Your task to perform on an android device: toggle pop-ups in chrome Image 0: 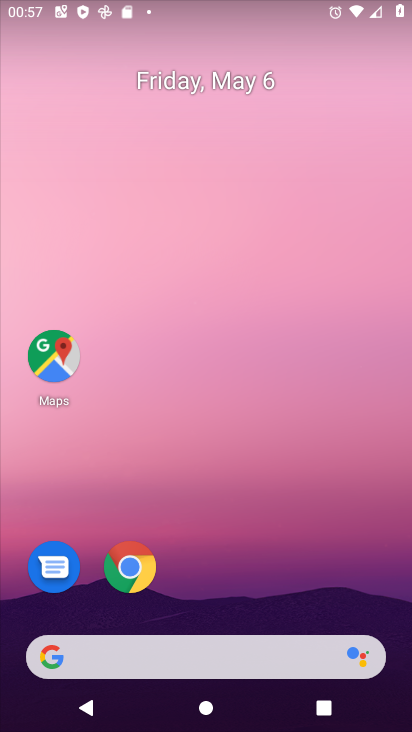
Step 0: click (133, 579)
Your task to perform on an android device: toggle pop-ups in chrome Image 1: 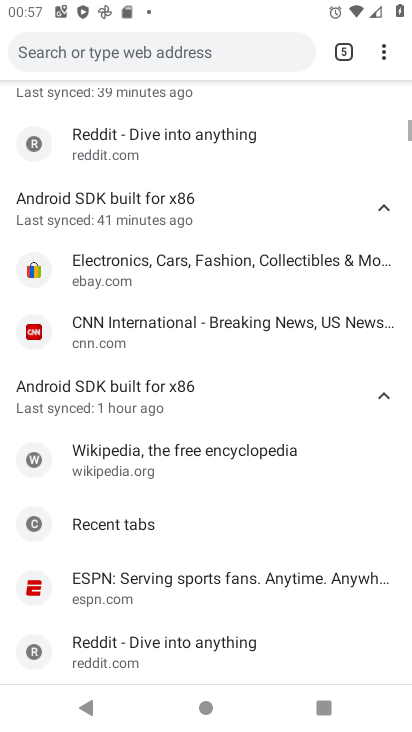
Step 1: click (385, 50)
Your task to perform on an android device: toggle pop-ups in chrome Image 2: 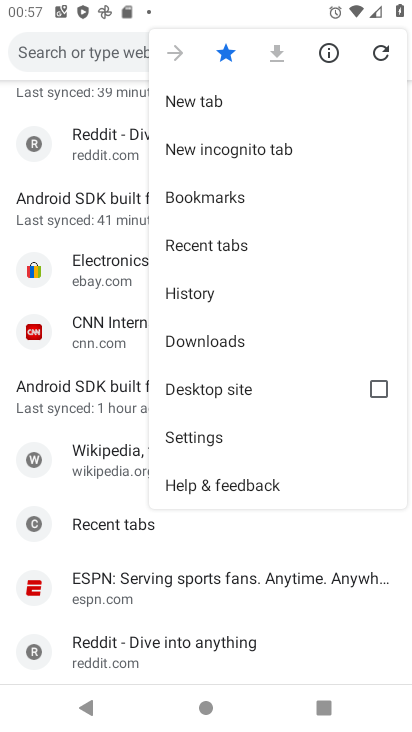
Step 2: click (216, 431)
Your task to perform on an android device: toggle pop-ups in chrome Image 3: 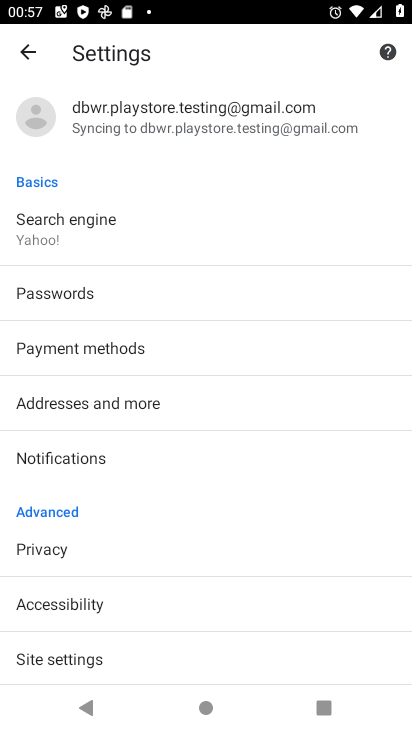
Step 3: drag from (170, 619) to (170, 357)
Your task to perform on an android device: toggle pop-ups in chrome Image 4: 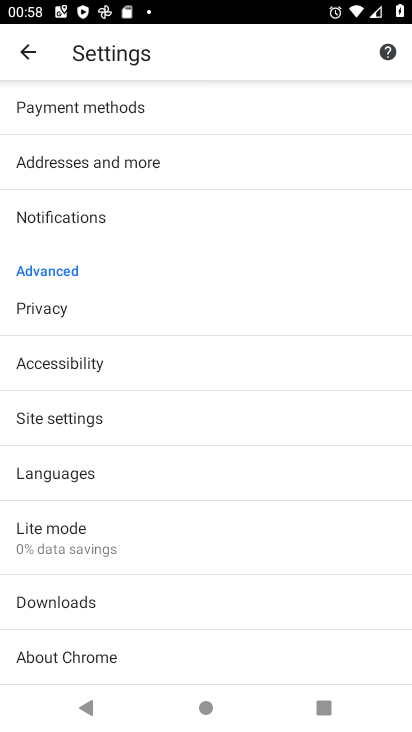
Step 4: click (101, 423)
Your task to perform on an android device: toggle pop-ups in chrome Image 5: 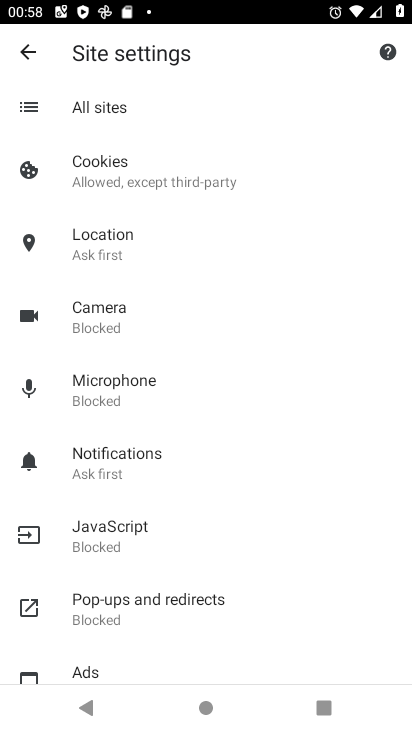
Step 5: click (155, 597)
Your task to perform on an android device: toggle pop-ups in chrome Image 6: 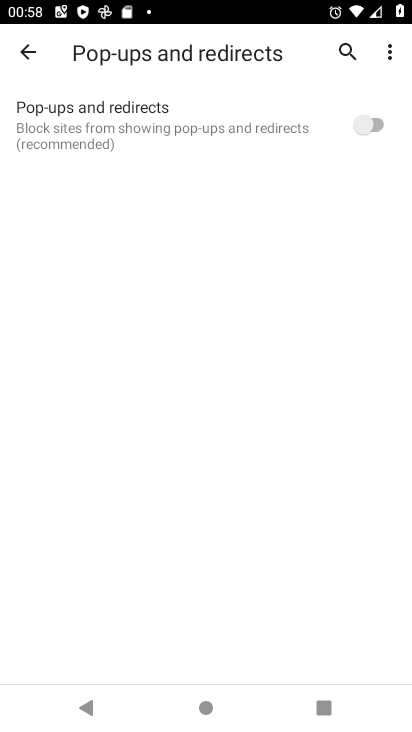
Step 6: click (382, 127)
Your task to perform on an android device: toggle pop-ups in chrome Image 7: 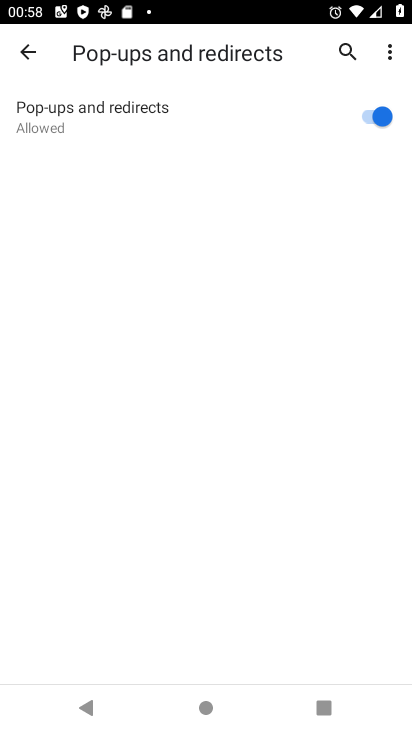
Step 7: task complete